Your task to perform on an android device: delete location history Image 0: 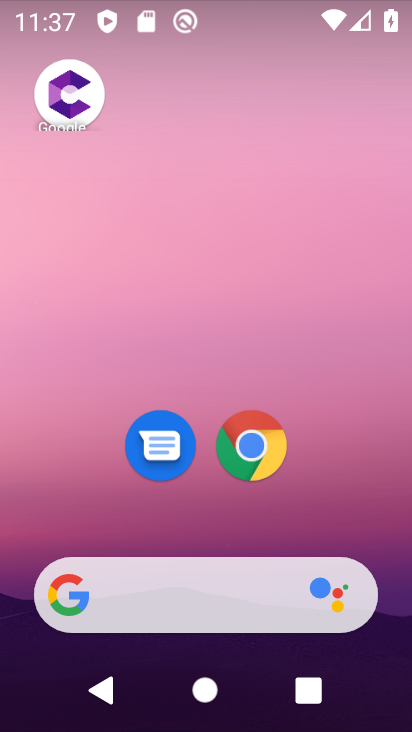
Step 0: drag from (224, 533) to (213, 90)
Your task to perform on an android device: delete location history Image 1: 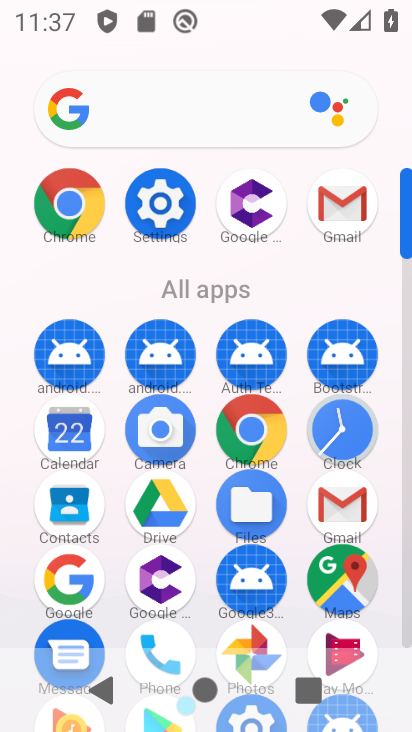
Step 1: click (351, 570)
Your task to perform on an android device: delete location history Image 2: 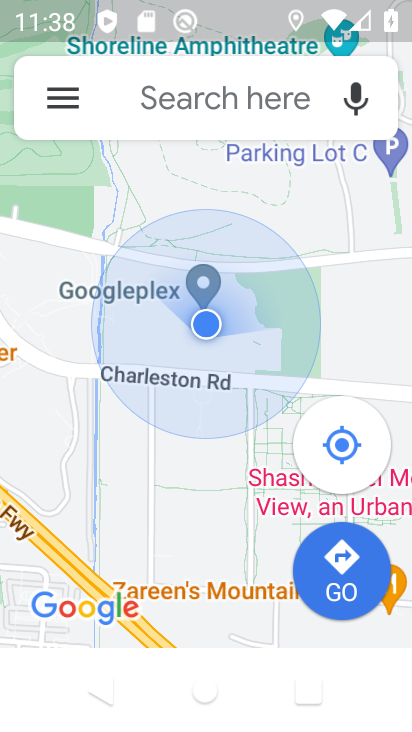
Step 2: click (67, 101)
Your task to perform on an android device: delete location history Image 3: 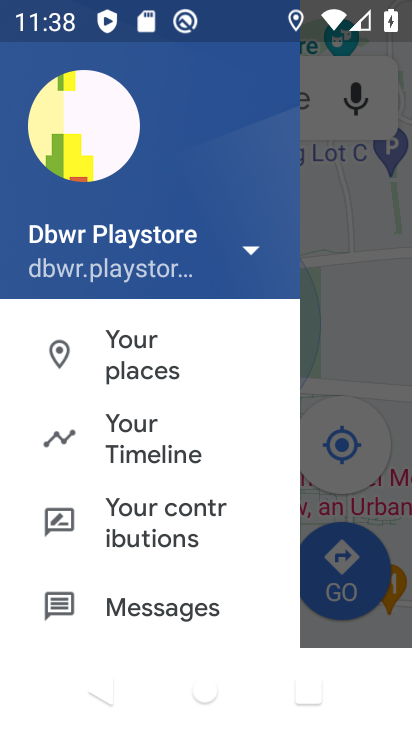
Step 3: click (150, 443)
Your task to perform on an android device: delete location history Image 4: 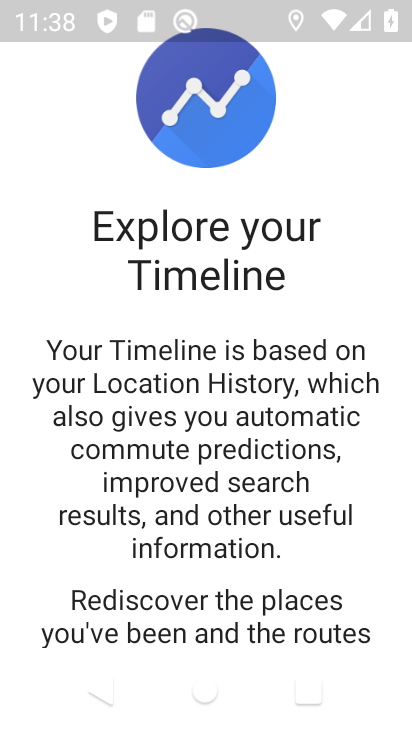
Step 4: drag from (220, 595) to (220, 165)
Your task to perform on an android device: delete location history Image 5: 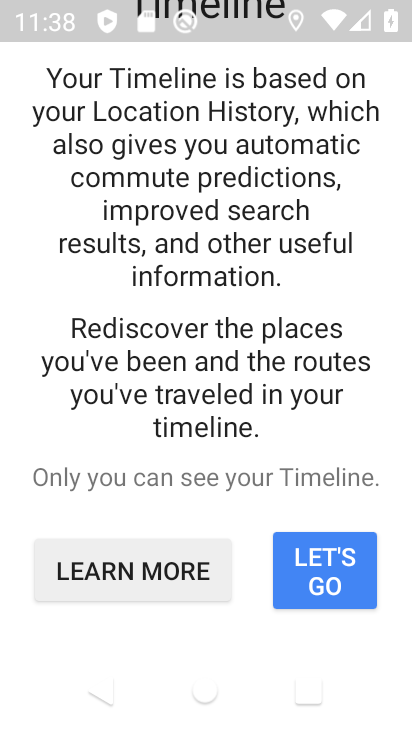
Step 5: click (316, 576)
Your task to perform on an android device: delete location history Image 6: 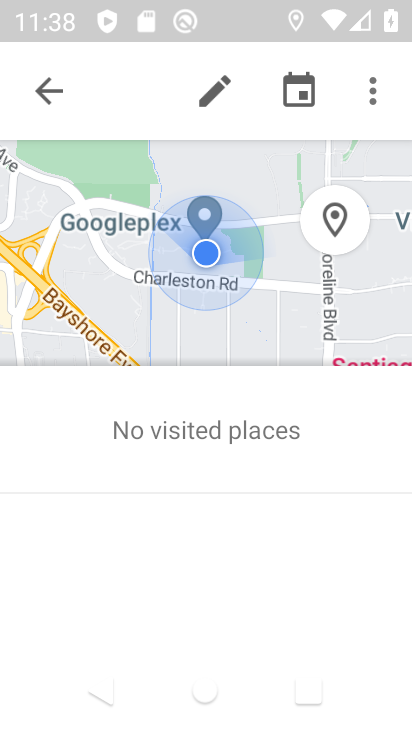
Step 6: click (378, 93)
Your task to perform on an android device: delete location history Image 7: 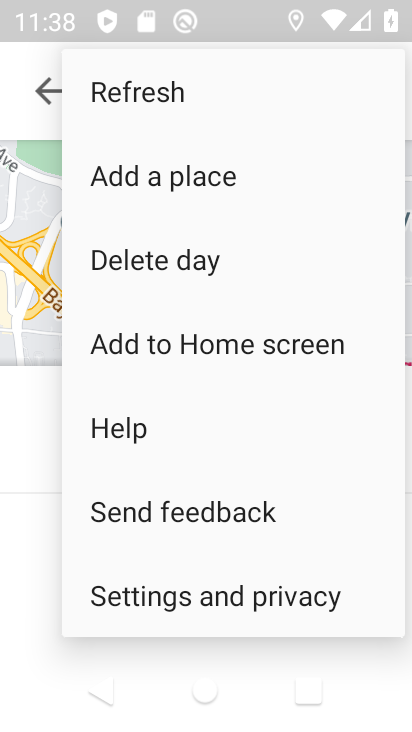
Step 7: click (256, 598)
Your task to perform on an android device: delete location history Image 8: 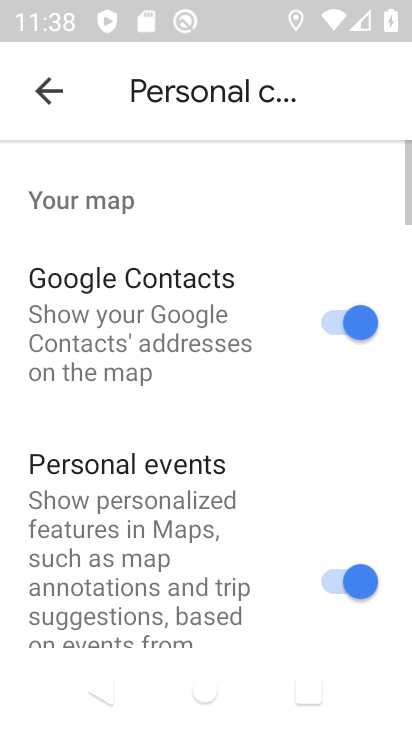
Step 8: drag from (214, 577) to (236, 119)
Your task to perform on an android device: delete location history Image 9: 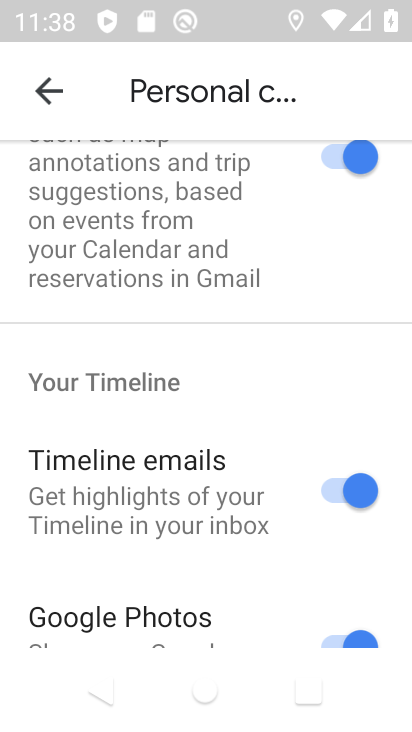
Step 9: drag from (213, 608) to (214, 162)
Your task to perform on an android device: delete location history Image 10: 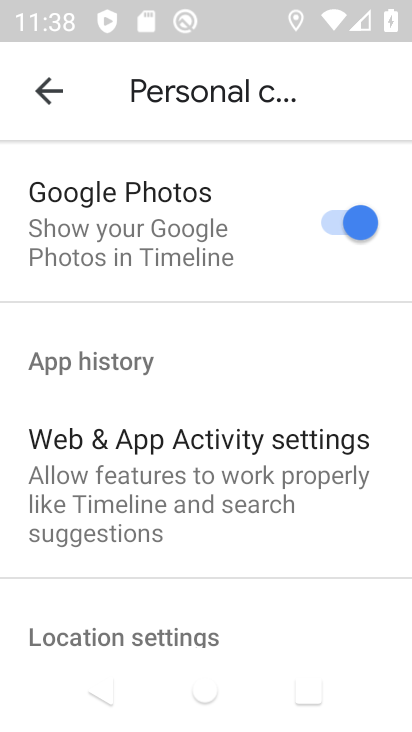
Step 10: drag from (219, 598) to (234, 218)
Your task to perform on an android device: delete location history Image 11: 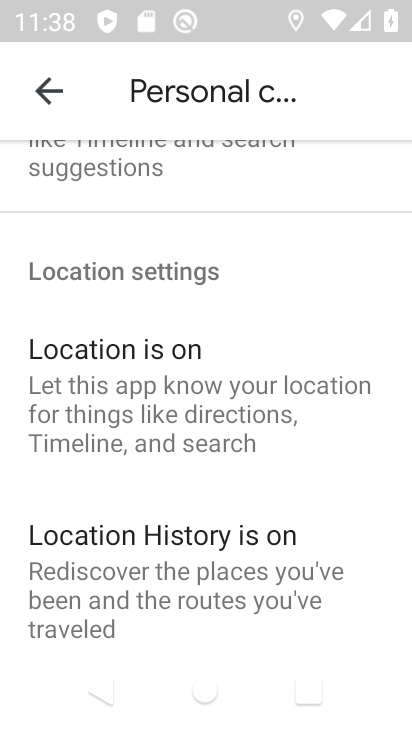
Step 11: drag from (225, 545) to (248, 118)
Your task to perform on an android device: delete location history Image 12: 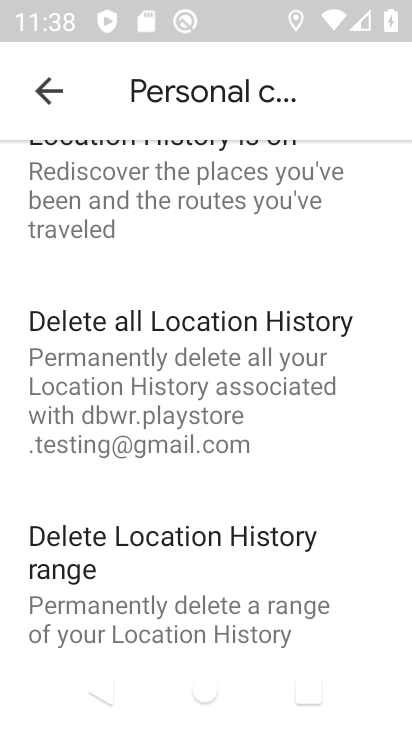
Step 12: click (186, 398)
Your task to perform on an android device: delete location history Image 13: 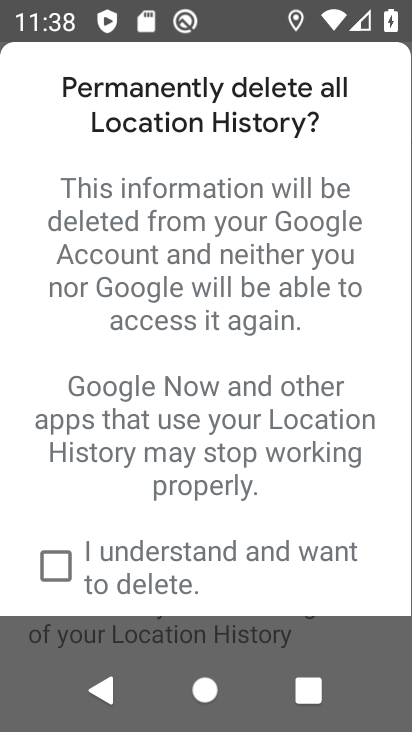
Step 13: click (61, 565)
Your task to perform on an android device: delete location history Image 14: 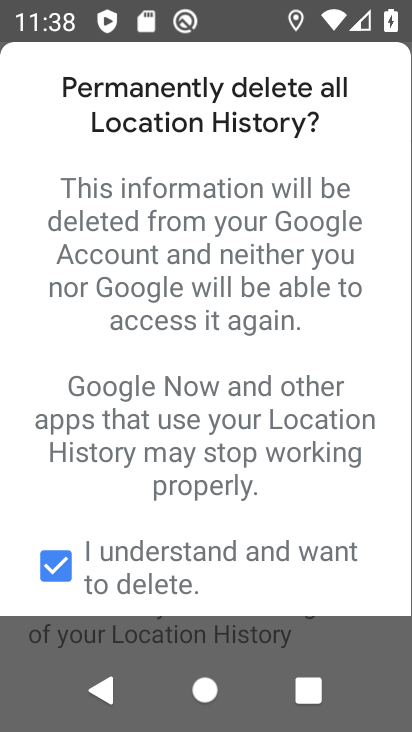
Step 14: task complete